Your task to perform on an android device: toggle sleep mode Image 0: 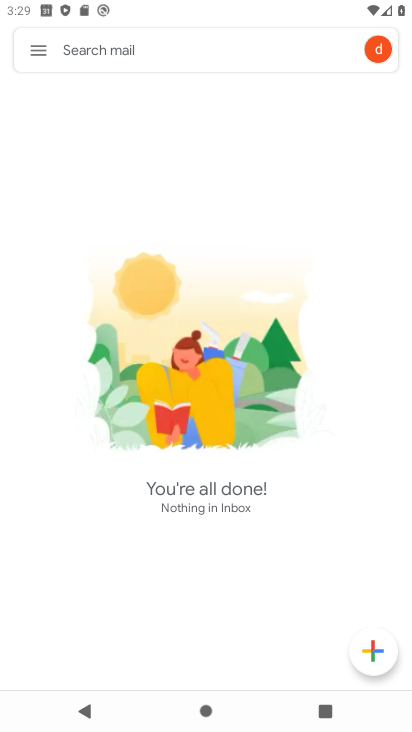
Step 0: press home button
Your task to perform on an android device: toggle sleep mode Image 1: 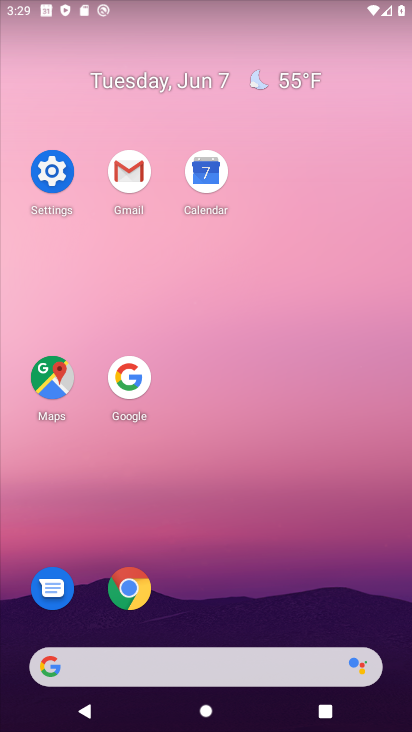
Step 1: click (63, 167)
Your task to perform on an android device: toggle sleep mode Image 2: 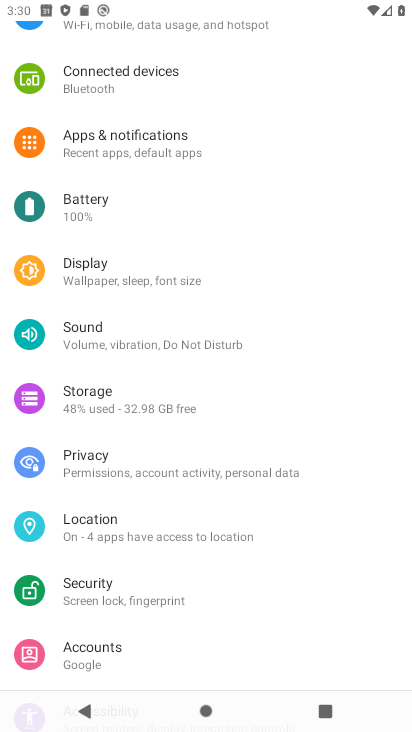
Step 2: click (182, 251)
Your task to perform on an android device: toggle sleep mode Image 3: 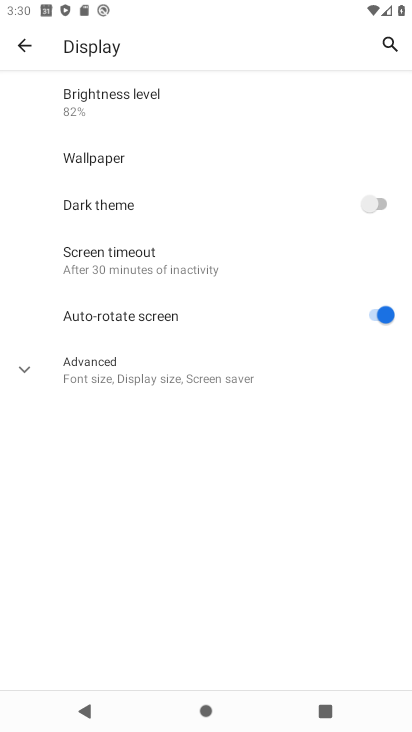
Step 3: click (182, 251)
Your task to perform on an android device: toggle sleep mode Image 4: 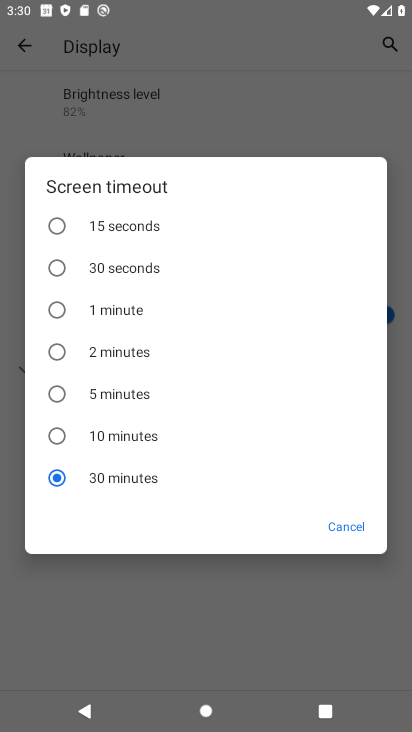
Step 4: click (127, 274)
Your task to perform on an android device: toggle sleep mode Image 5: 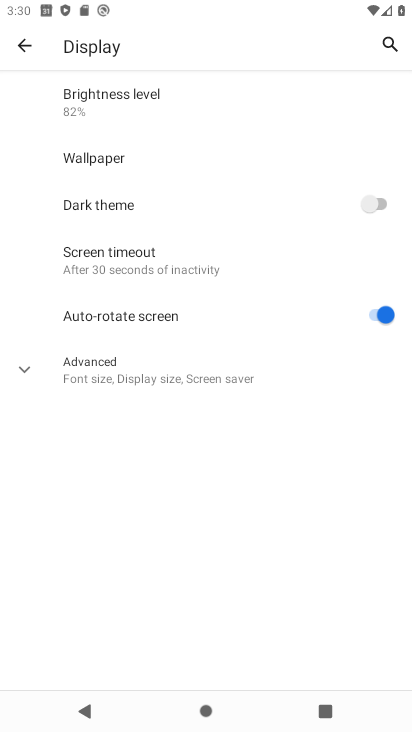
Step 5: task complete